Your task to perform on an android device: check android version Image 0: 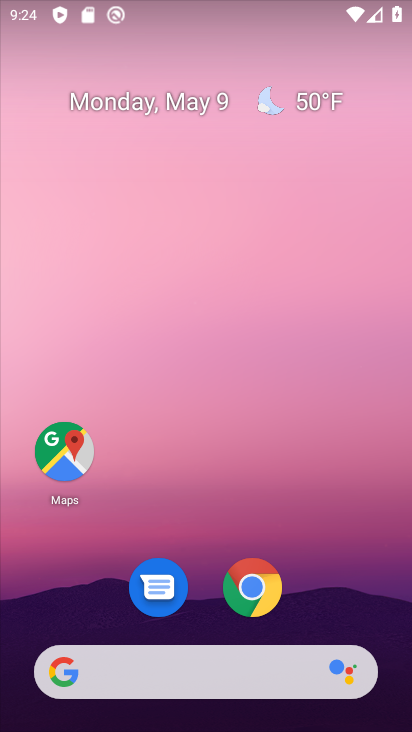
Step 0: drag from (203, 725) to (209, 94)
Your task to perform on an android device: check android version Image 1: 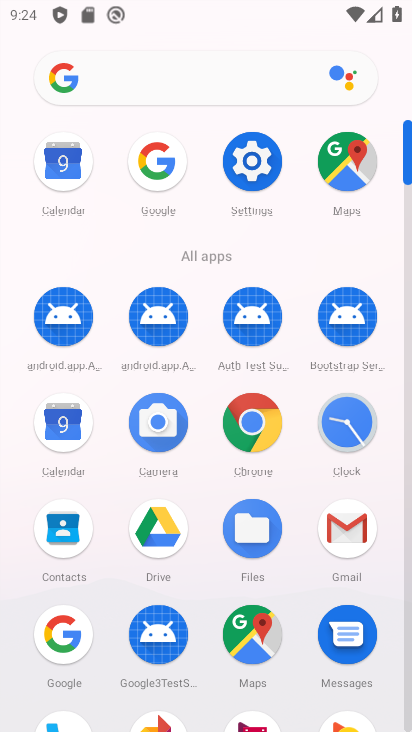
Step 1: click (249, 154)
Your task to perform on an android device: check android version Image 2: 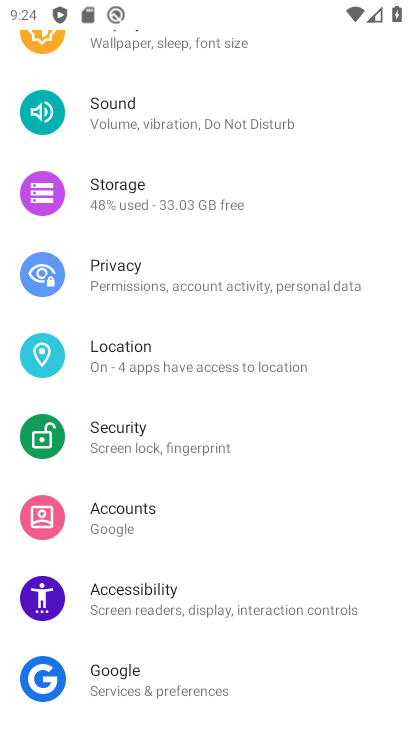
Step 2: drag from (220, 659) to (221, 298)
Your task to perform on an android device: check android version Image 3: 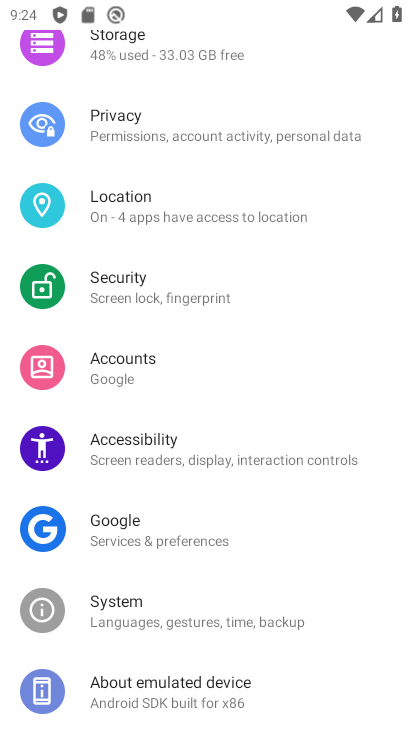
Step 3: click (189, 682)
Your task to perform on an android device: check android version Image 4: 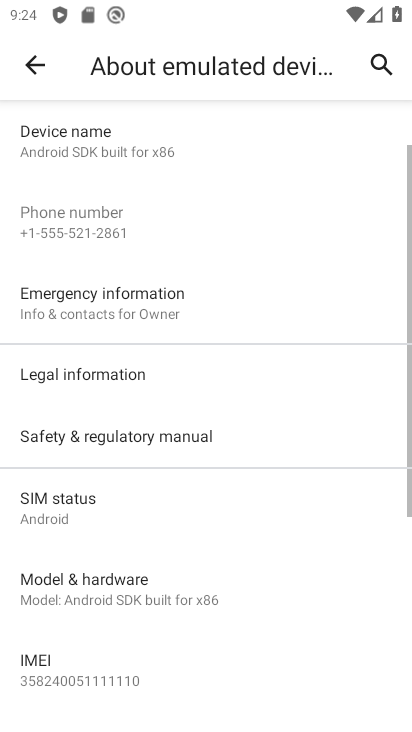
Step 4: drag from (153, 699) to (160, 319)
Your task to perform on an android device: check android version Image 5: 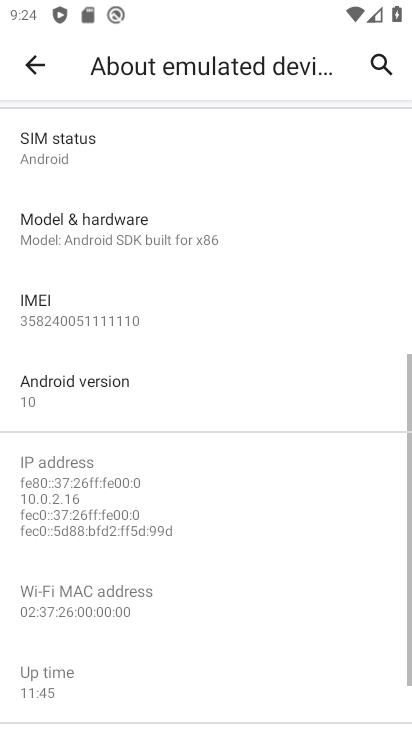
Step 5: click (95, 383)
Your task to perform on an android device: check android version Image 6: 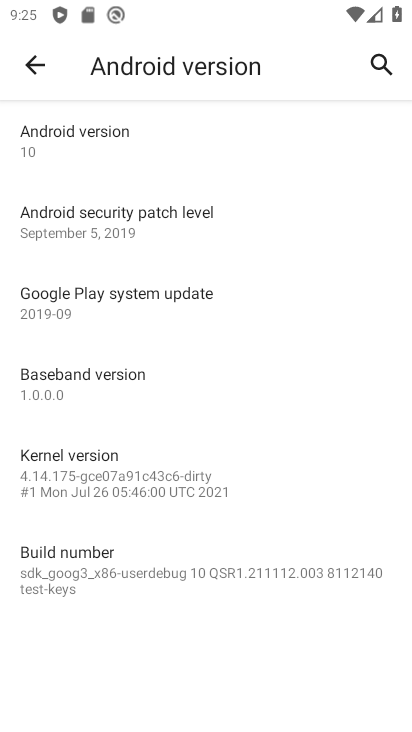
Step 6: task complete